Your task to perform on an android device: turn on showing notifications on the lock screen Image 0: 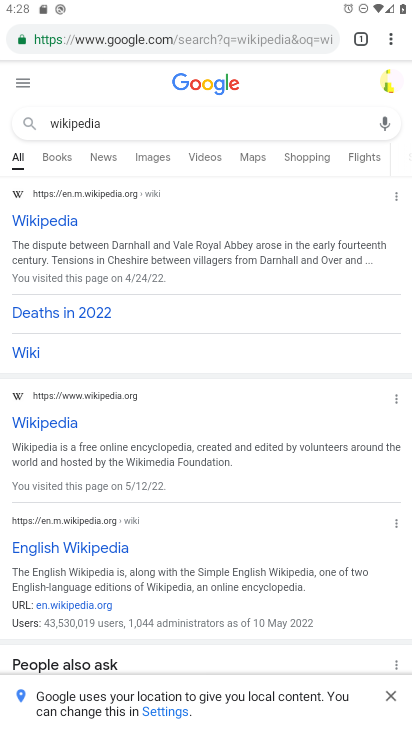
Step 0: press home button
Your task to perform on an android device: turn on showing notifications on the lock screen Image 1: 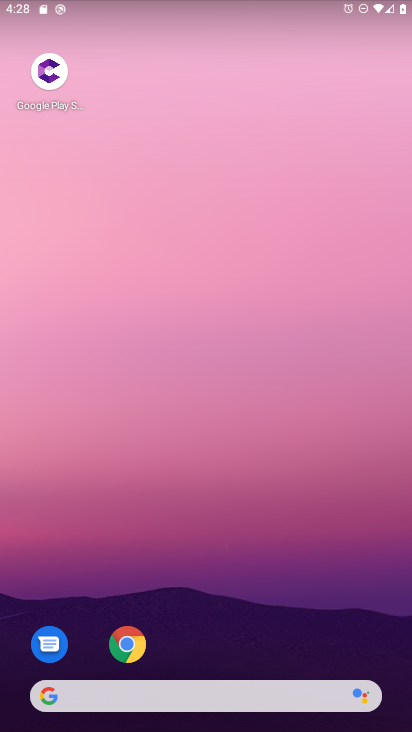
Step 1: drag from (221, 656) to (301, 81)
Your task to perform on an android device: turn on showing notifications on the lock screen Image 2: 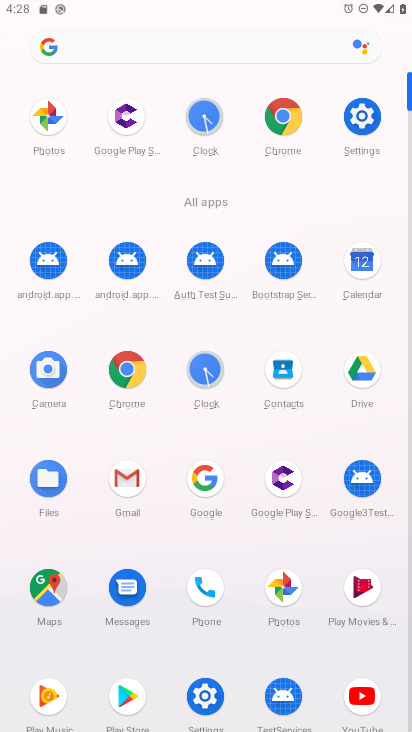
Step 2: click (355, 129)
Your task to perform on an android device: turn on showing notifications on the lock screen Image 3: 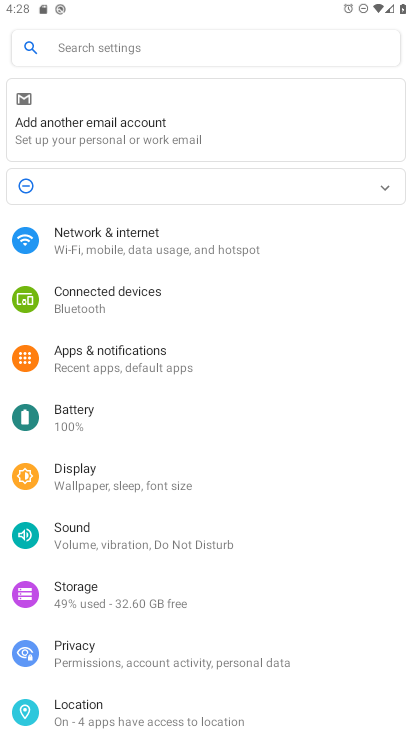
Step 3: click (136, 374)
Your task to perform on an android device: turn on showing notifications on the lock screen Image 4: 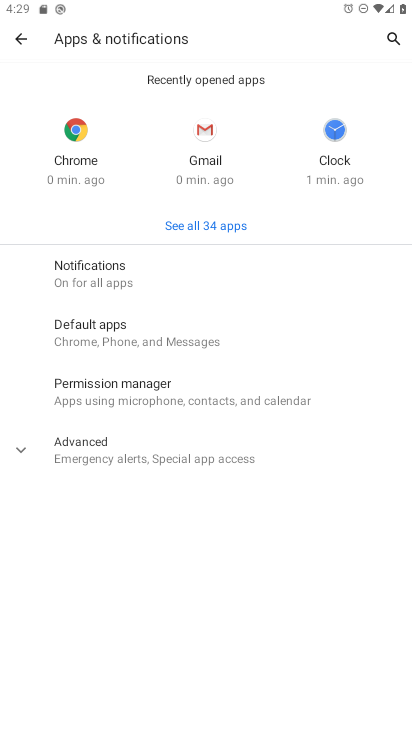
Step 4: click (100, 291)
Your task to perform on an android device: turn on showing notifications on the lock screen Image 5: 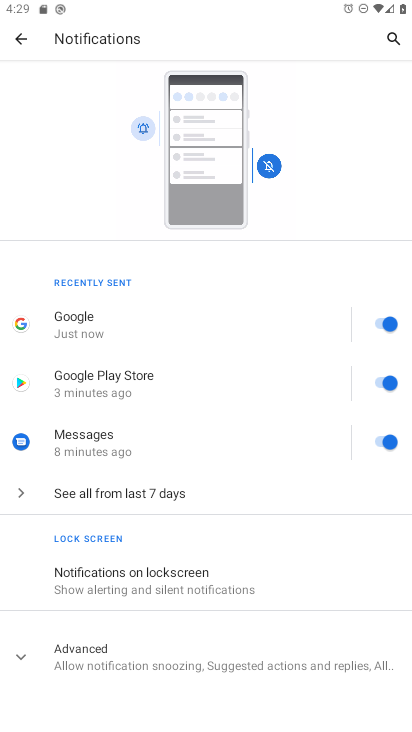
Step 5: click (149, 584)
Your task to perform on an android device: turn on showing notifications on the lock screen Image 6: 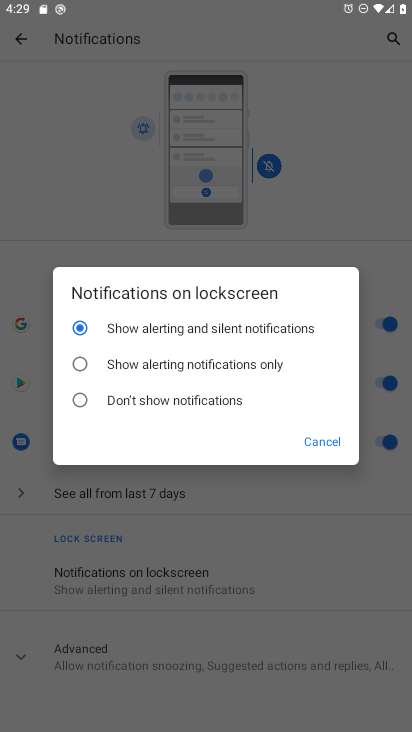
Step 6: task complete